Your task to perform on an android device: add a contact in the contacts app Image 0: 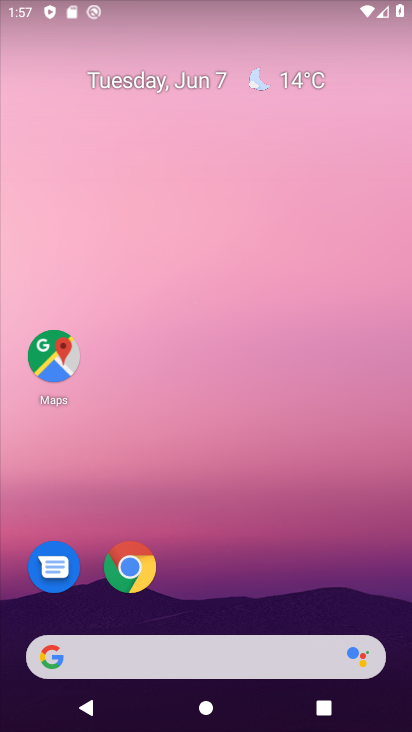
Step 0: drag from (186, 606) to (173, 221)
Your task to perform on an android device: add a contact in the contacts app Image 1: 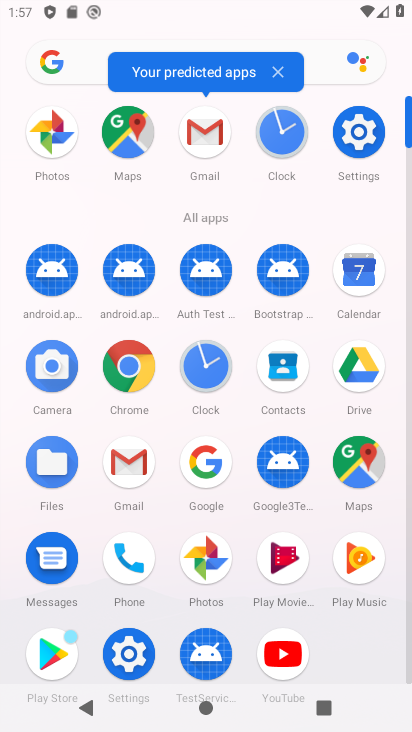
Step 1: click (284, 380)
Your task to perform on an android device: add a contact in the contacts app Image 2: 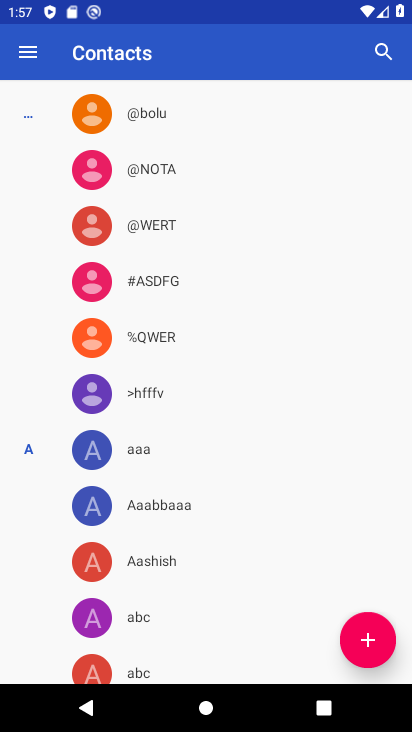
Step 2: click (374, 629)
Your task to perform on an android device: add a contact in the contacts app Image 3: 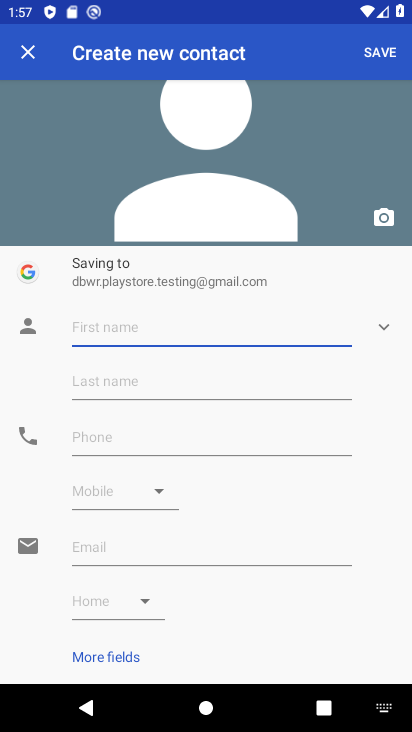
Step 3: type "ftjfj"
Your task to perform on an android device: add a contact in the contacts app Image 4: 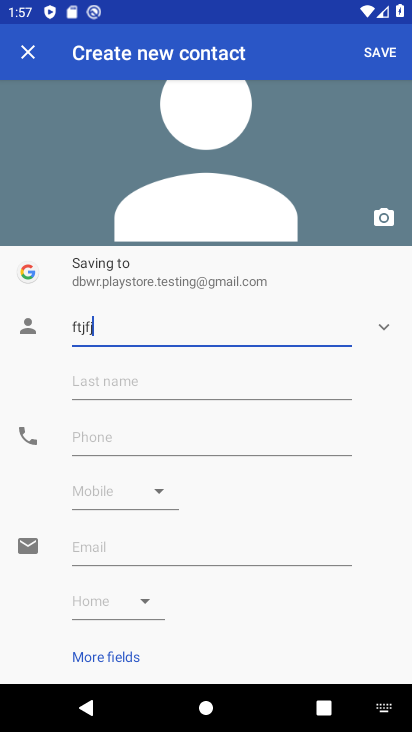
Step 4: click (89, 440)
Your task to perform on an android device: add a contact in the contacts app Image 5: 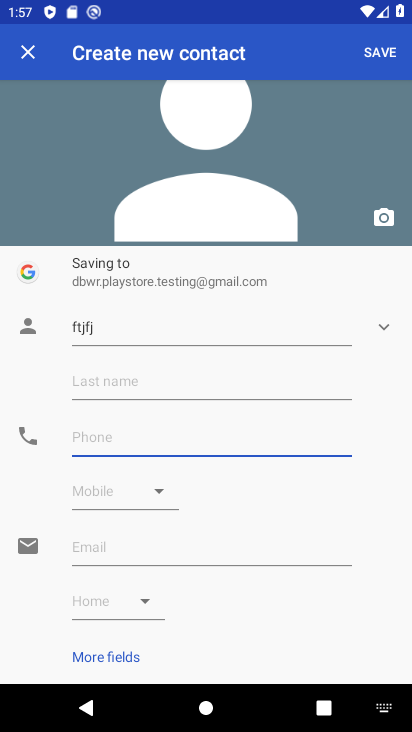
Step 5: type "9768678566"
Your task to perform on an android device: add a contact in the contacts app Image 6: 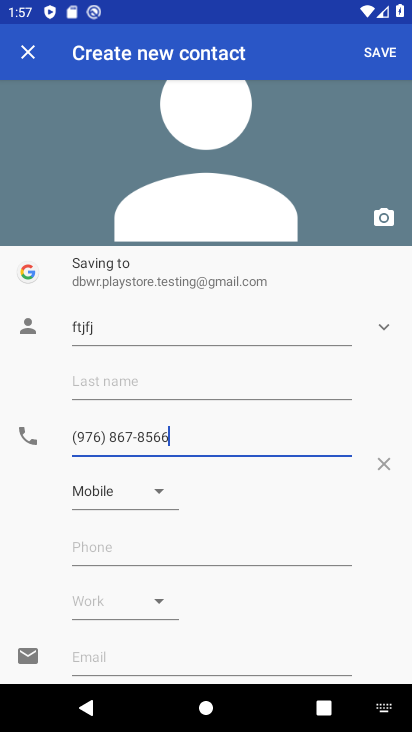
Step 6: click (378, 55)
Your task to perform on an android device: add a contact in the contacts app Image 7: 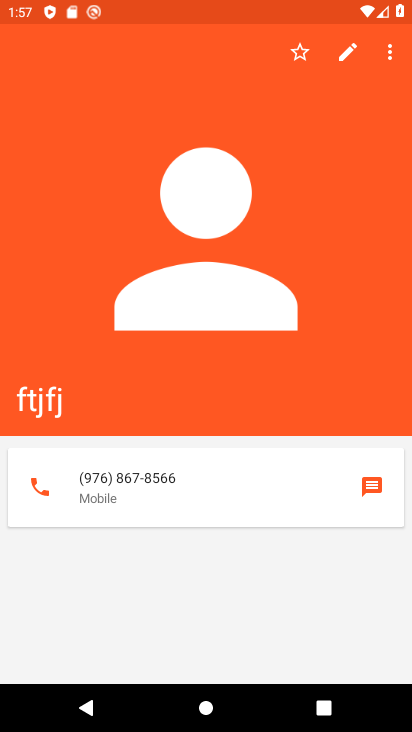
Step 7: task complete